Your task to perform on an android device: Open the calendar and show me this week's events Image 0: 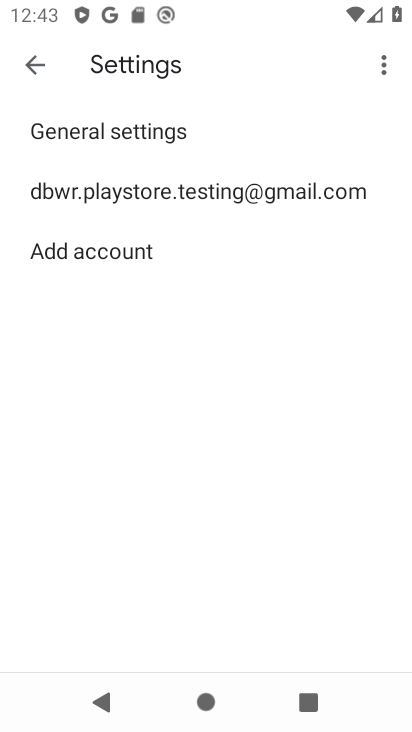
Step 0: press home button
Your task to perform on an android device: Open the calendar and show me this week's events Image 1: 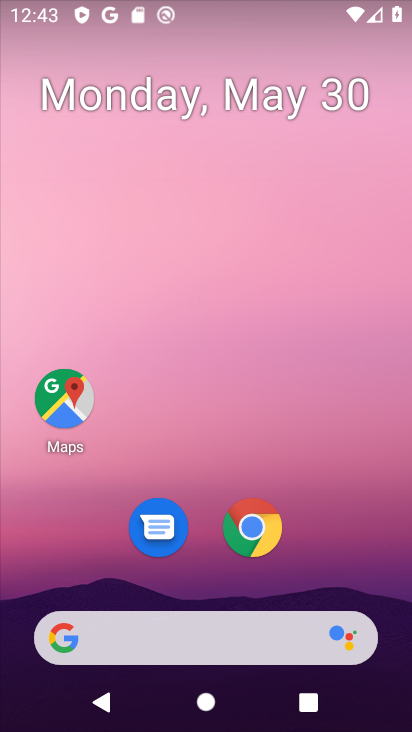
Step 1: drag from (358, 562) to (321, 278)
Your task to perform on an android device: Open the calendar and show me this week's events Image 2: 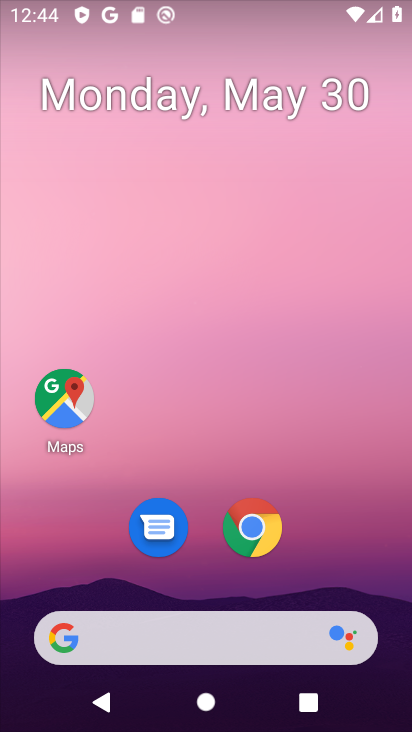
Step 2: drag from (334, 571) to (280, 72)
Your task to perform on an android device: Open the calendar and show me this week's events Image 3: 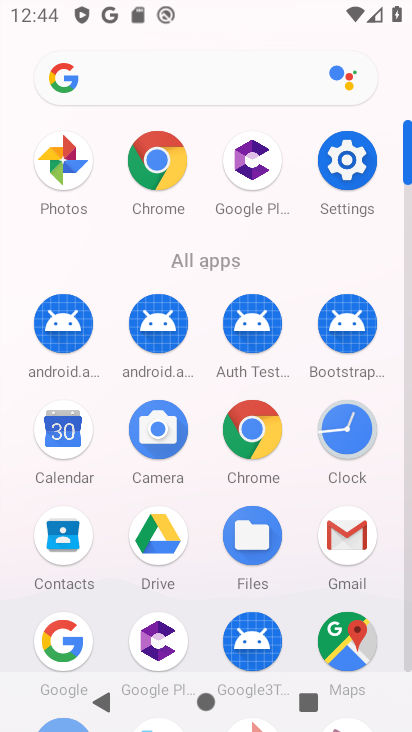
Step 3: click (66, 430)
Your task to perform on an android device: Open the calendar and show me this week's events Image 4: 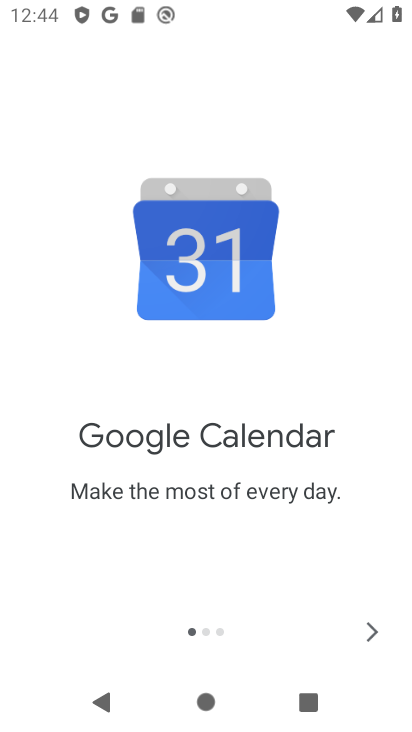
Step 4: click (370, 636)
Your task to perform on an android device: Open the calendar and show me this week's events Image 5: 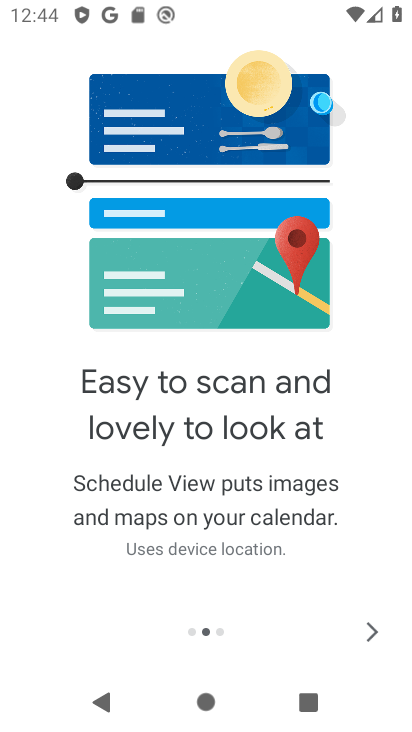
Step 5: click (370, 636)
Your task to perform on an android device: Open the calendar and show me this week's events Image 6: 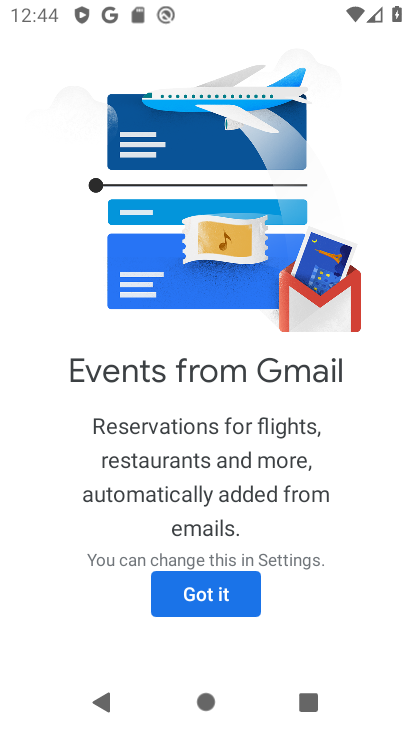
Step 6: click (241, 592)
Your task to perform on an android device: Open the calendar and show me this week's events Image 7: 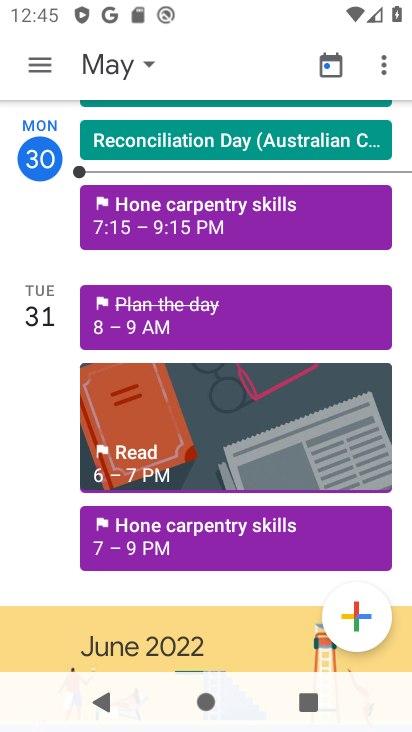
Step 7: click (44, 81)
Your task to perform on an android device: Open the calendar and show me this week's events Image 8: 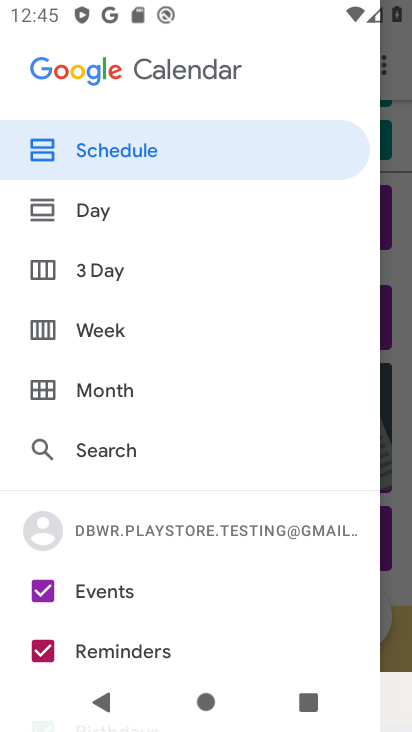
Step 8: drag from (159, 600) to (154, 232)
Your task to perform on an android device: Open the calendar and show me this week's events Image 9: 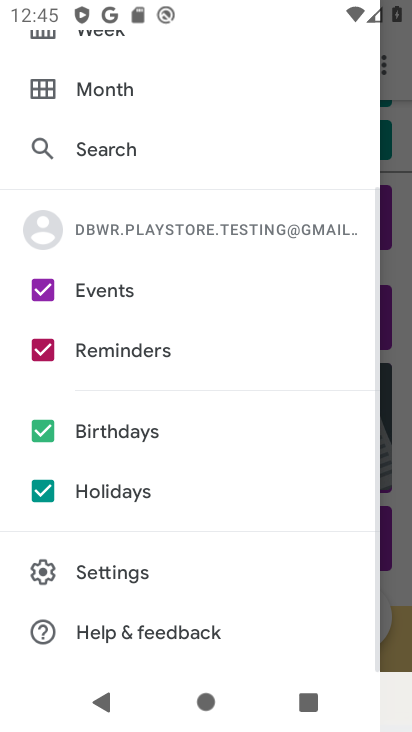
Step 9: click (45, 490)
Your task to perform on an android device: Open the calendar and show me this week's events Image 10: 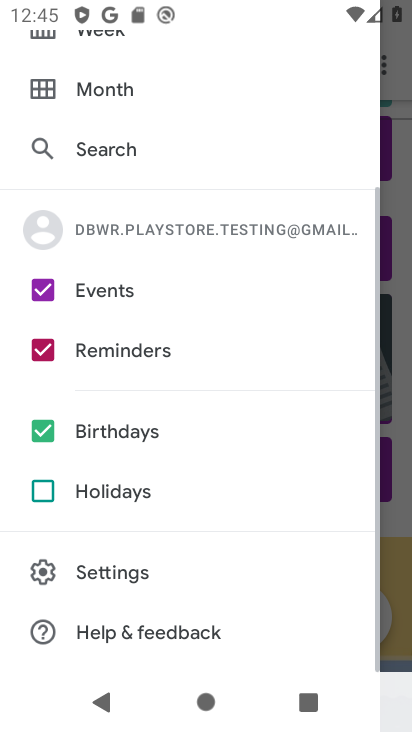
Step 10: click (40, 431)
Your task to perform on an android device: Open the calendar and show me this week's events Image 11: 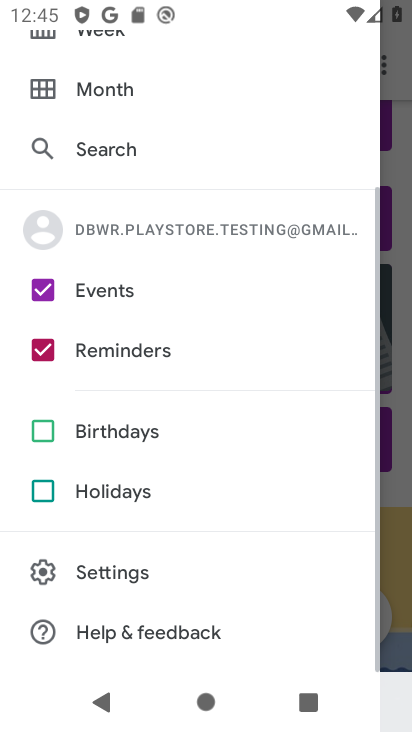
Step 11: click (32, 350)
Your task to perform on an android device: Open the calendar and show me this week's events Image 12: 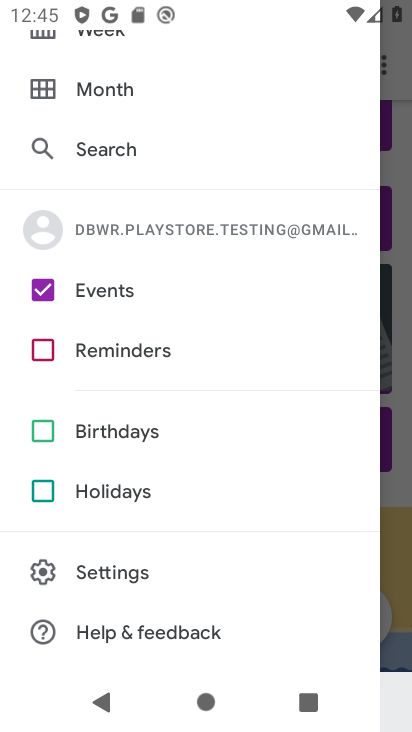
Step 12: drag from (192, 159) to (185, 374)
Your task to perform on an android device: Open the calendar and show me this week's events Image 13: 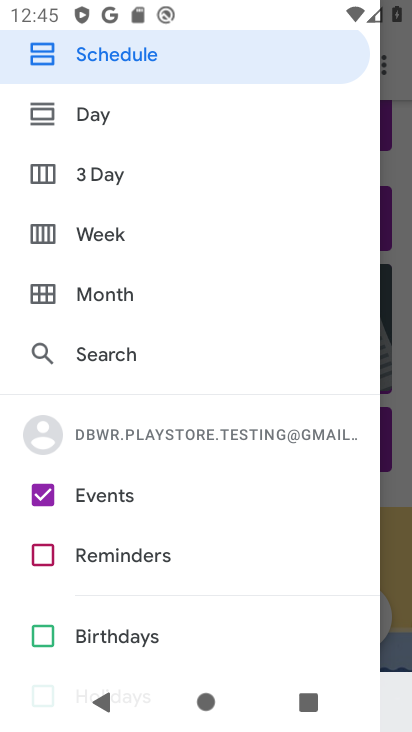
Step 13: click (155, 227)
Your task to perform on an android device: Open the calendar and show me this week's events Image 14: 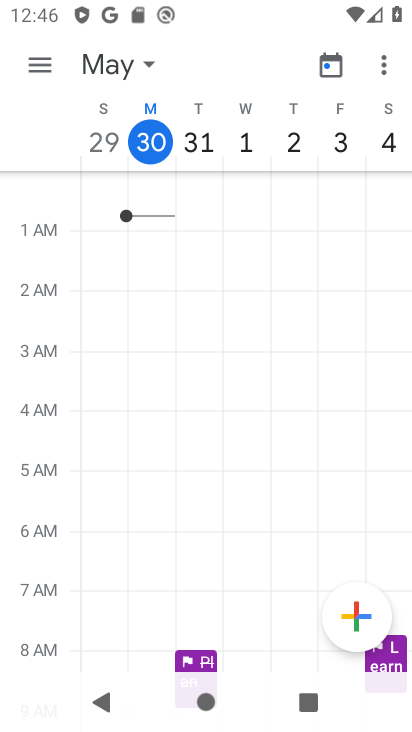
Step 14: task complete